Your task to perform on an android device: open sync settings in chrome Image 0: 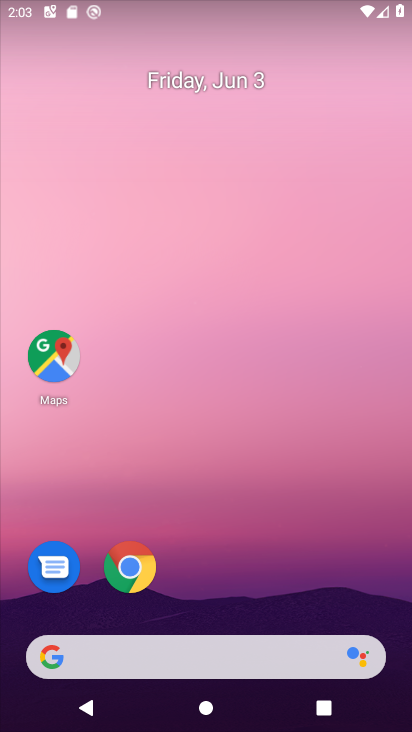
Step 0: drag from (266, 594) to (264, 237)
Your task to perform on an android device: open sync settings in chrome Image 1: 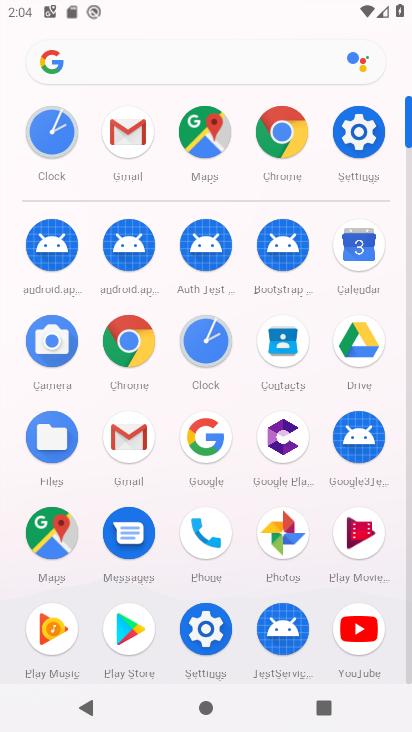
Step 1: click (270, 124)
Your task to perform on an android device: open sync settings in chrome Image 2: 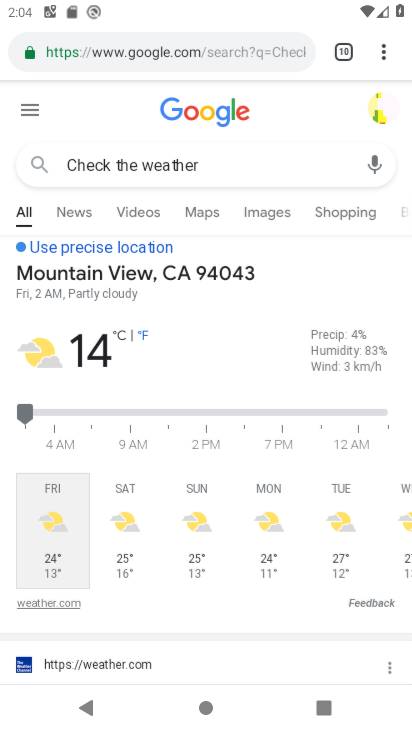
Step 2: click (377, 45)
Your task to perform on an android device: open sync settings in chrome Image 3: 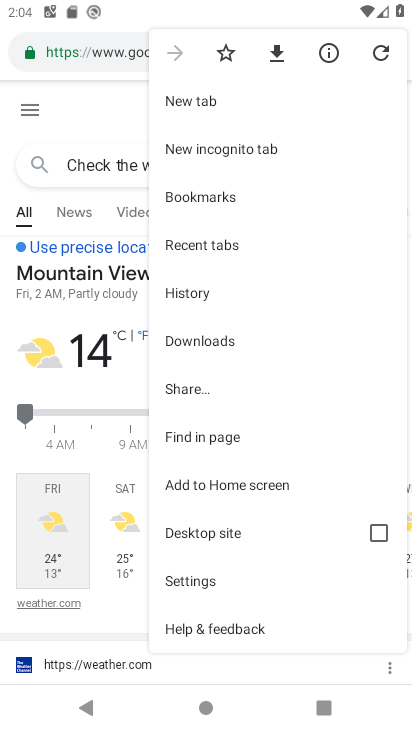
Step 3: click (199, 570)
Your task to perform on an android device: open sync settings in chrome Image 4: 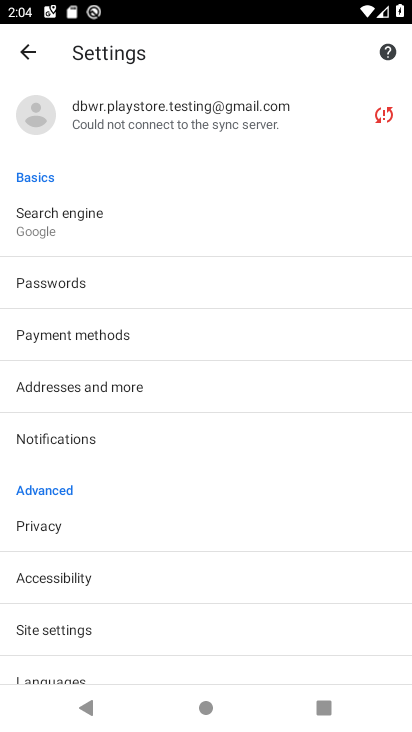
Step 4: click (187, 120)
Your task to perform on an android device: open sync settings in chrome Image 5: 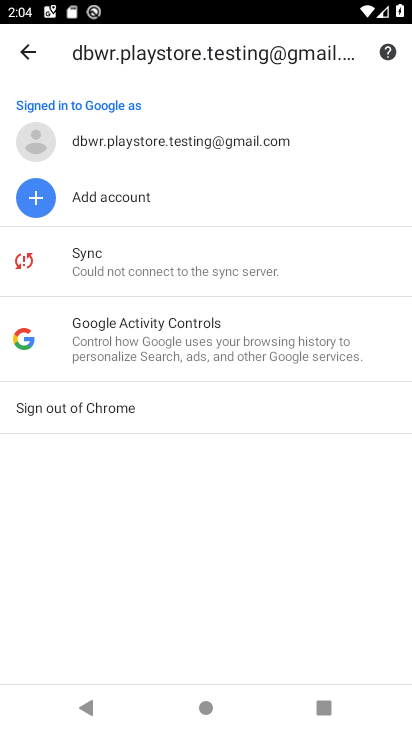
Step 5: click (103, 264)
Your task to perform on an android device: open sync settings in chrome Image 6: 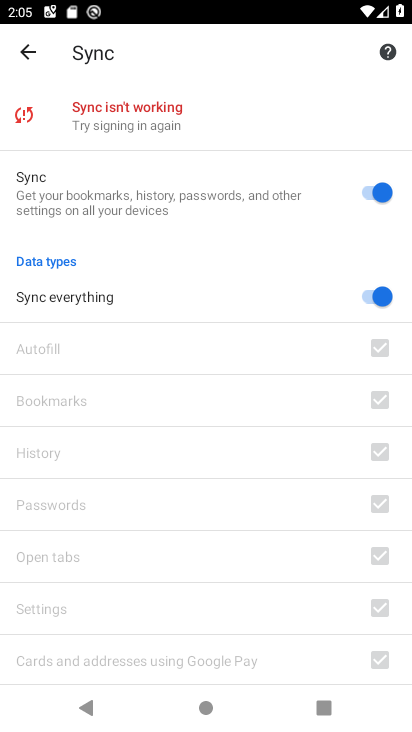
Step 6: task complete